Your task to perform on an android device: turn on translation in the chrome app Image 0: 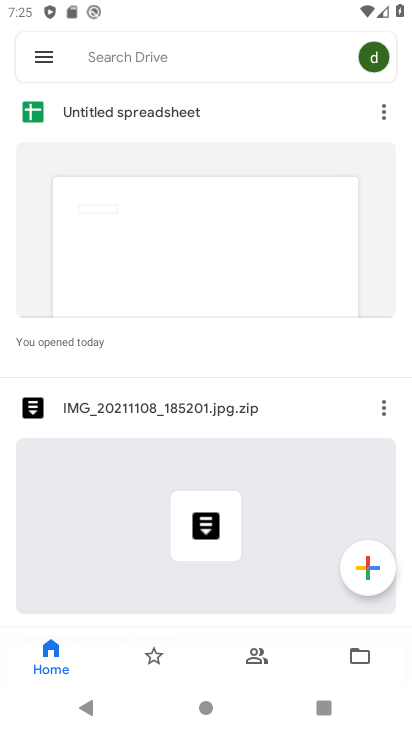
Step 0: press home button
Your task to perform on an android device: turn on translation in the chrome app Image 1: 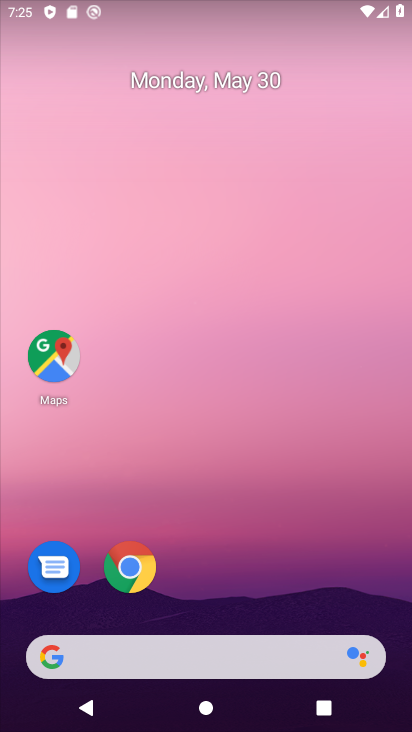
Step 1: click (122, 559)
Your task to perform on an android device: turn on translation in the chrome app Image 2: 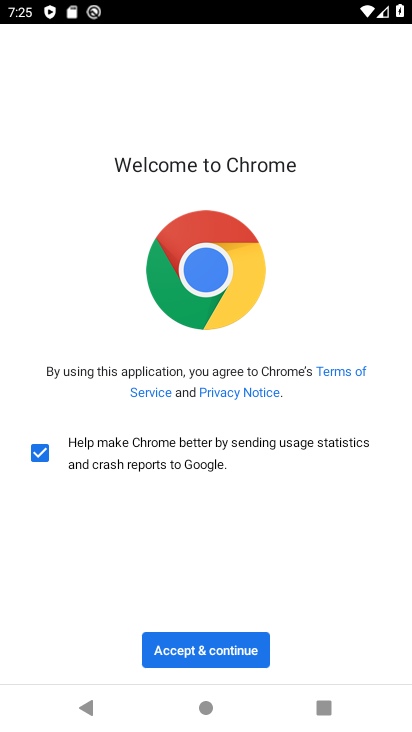
Step 2: click (185, 650)
Your task to perform on an android device: turn on translation in the chrome app Image 3: 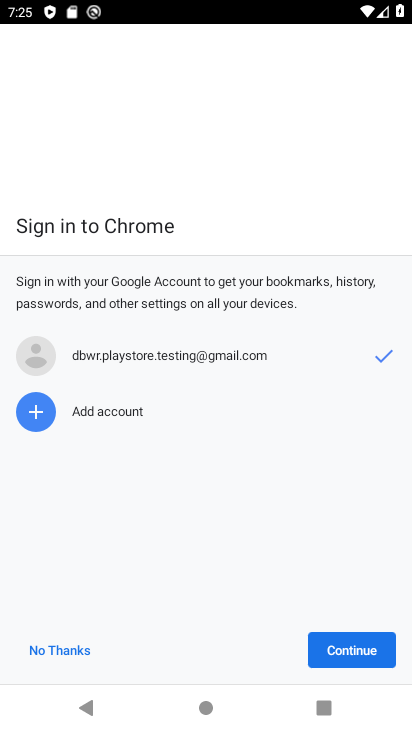
Step 3: click (331, 647)
Your task to perform on an android device: turn on translation in the chrome app Image 4: 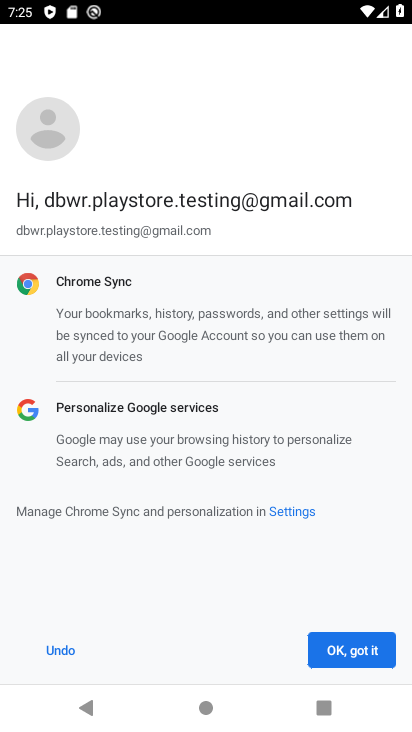
Step 4: click (332, 647)
Your task to perform on an android device: turn on translation in the chrome app Image 5: 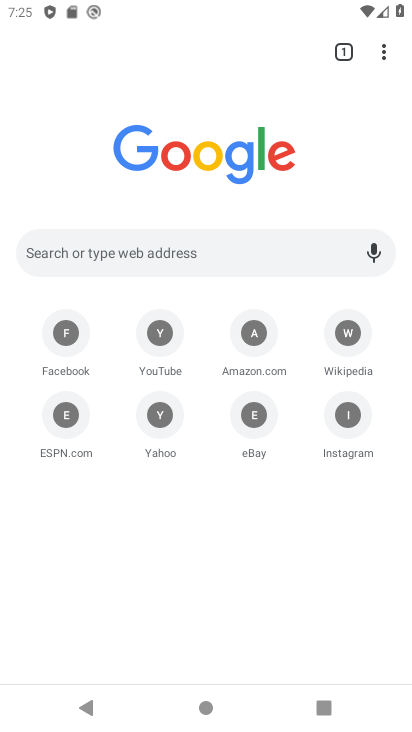
Step 5: click (377, 50)
Your task to perform on an android device: turn on translation in the chrome app Image 6: 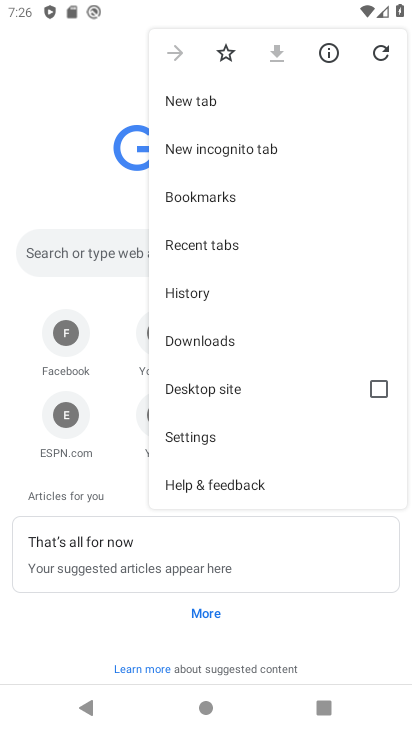
Step 6: click (224, 430)
Your task to perform on an android device: turn on translation in the chrome app Image 7: 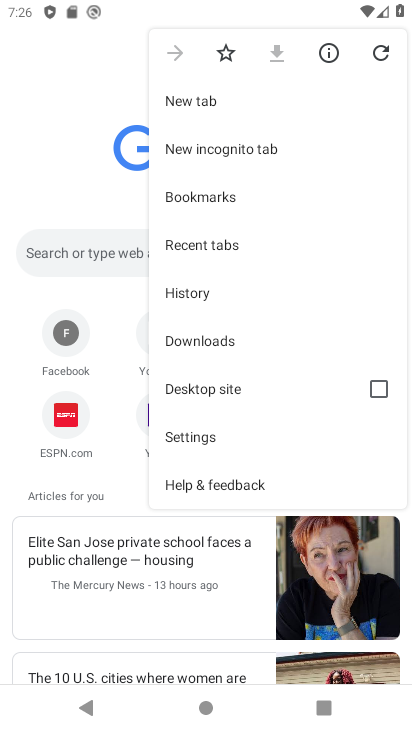
Step 7: click (196, 439)
Your task to perform on an android device: turn on translation in the chrome app Image 8: 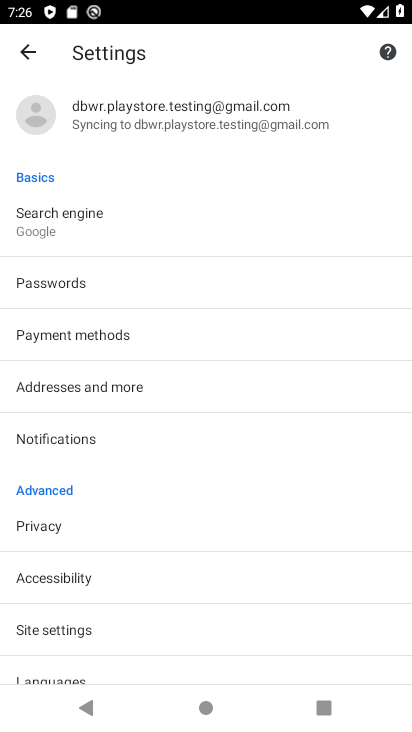
Step 8: drag from (167, 484) to (113, 202)
Your task to perform on an android device: turn on translation in the chrome app Image 9: 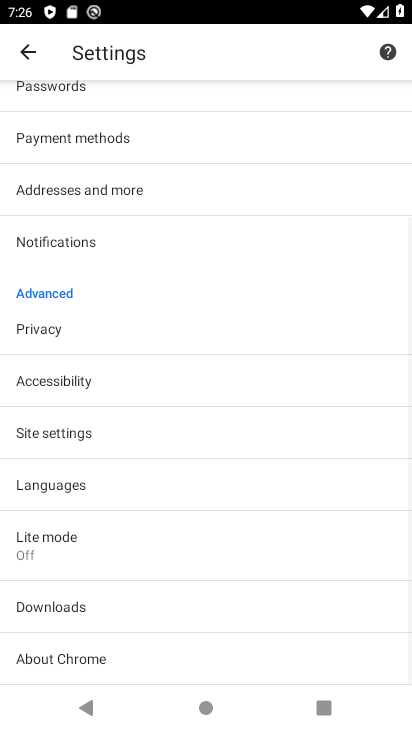
Step 9: click (56, 489)
Your task to perform on an android device: turn on translation in the chrome app Image 10: 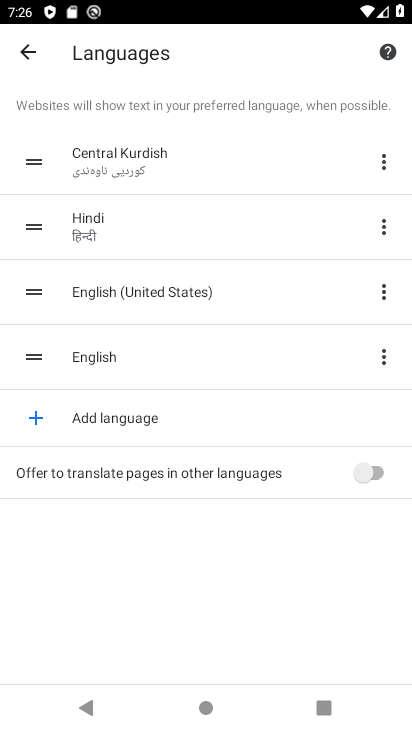
Step 10: click (377, 475)
Your task to perform on an android device: turn on translation in the chrome app Image 11: 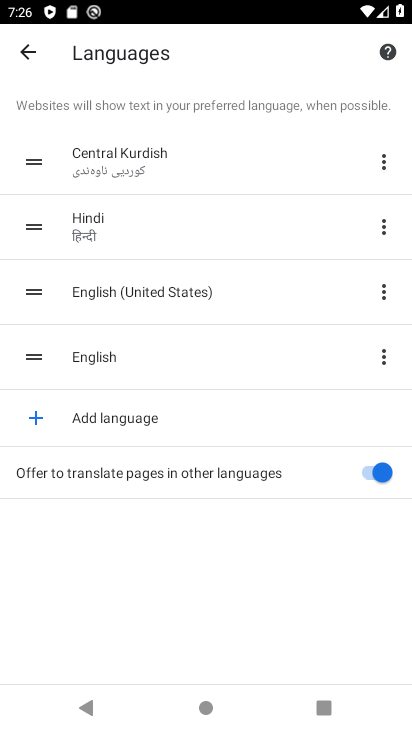
Step 11: task complete